Your task to perform on an android device: Empty the shopping cart on walmart. Add "acer predator" to the cart on walmart Image 0: 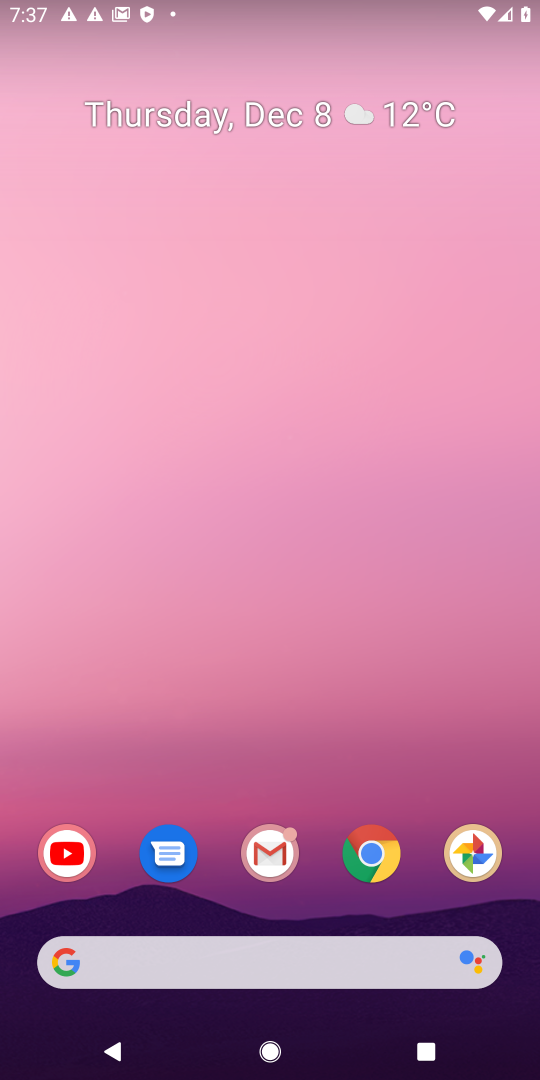
Step 0: click (195, 960)
Your task to perform on an android device: Empty the shopping cart on walmart. Add "acer predator" to the cart on walmart Image 1: 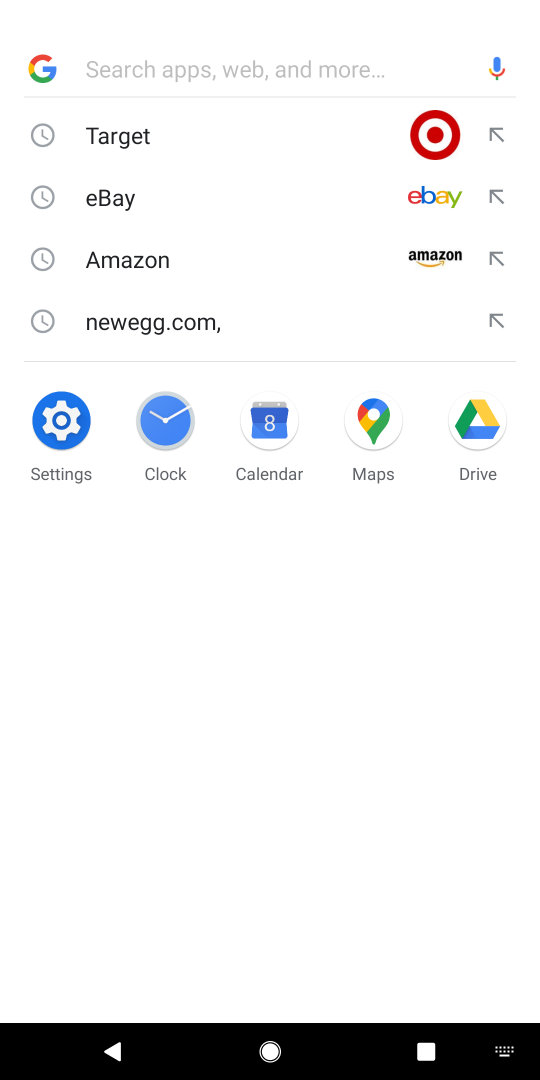
Step 1: type "walmart"
Your task to perform on an android device: Empty the shopping cart on walmart. Add "acer predator" to the cart on walmart Image 2: 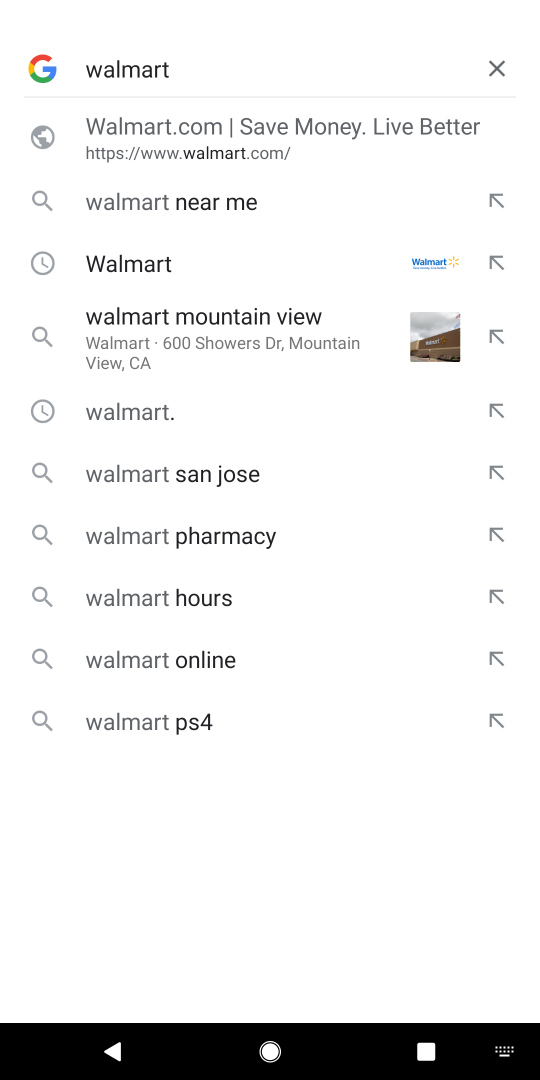
Step 2: click (117, 130)
Your task to perform on an android device: Empty the shopping cart on walmart. Add "acer predator" to the cart on walmart Image 3: 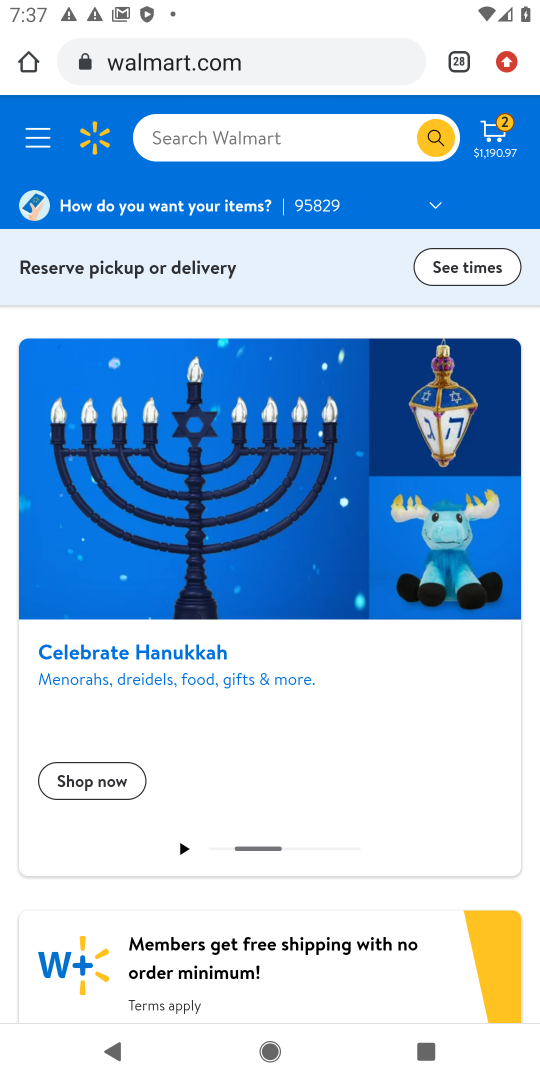
Step 3: click (495, 129)
Your task to perform on an android device: Empty the shopping cart on walmart. Add "acer predator" to the cart on walmart Image 4: 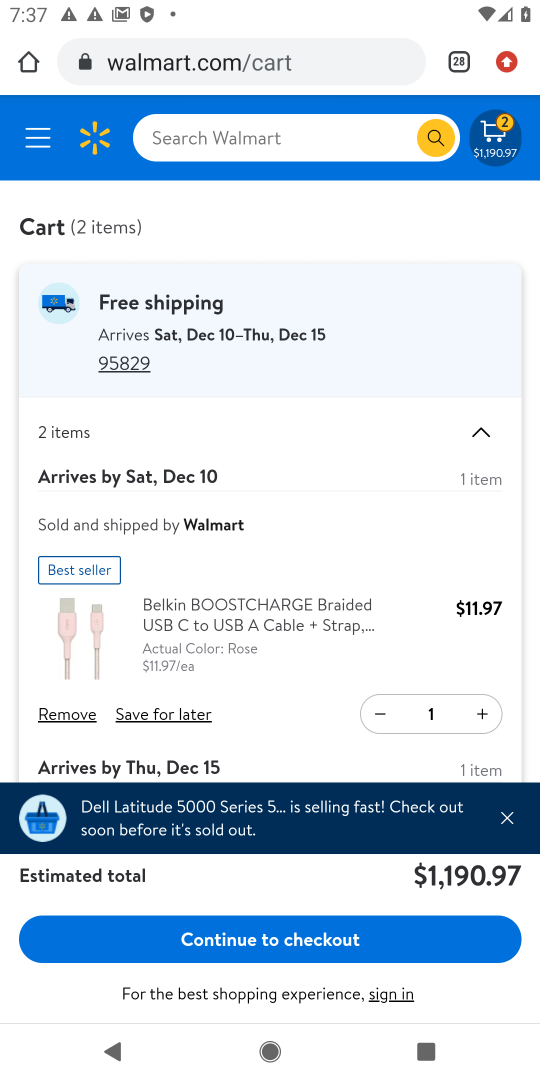
Step 4: drag from (285, 614) to (272, 296)
Your task to perform on an android device: Empty the shopping cart on walmart. Add "acer predator" to the cart on walmart Image 5: 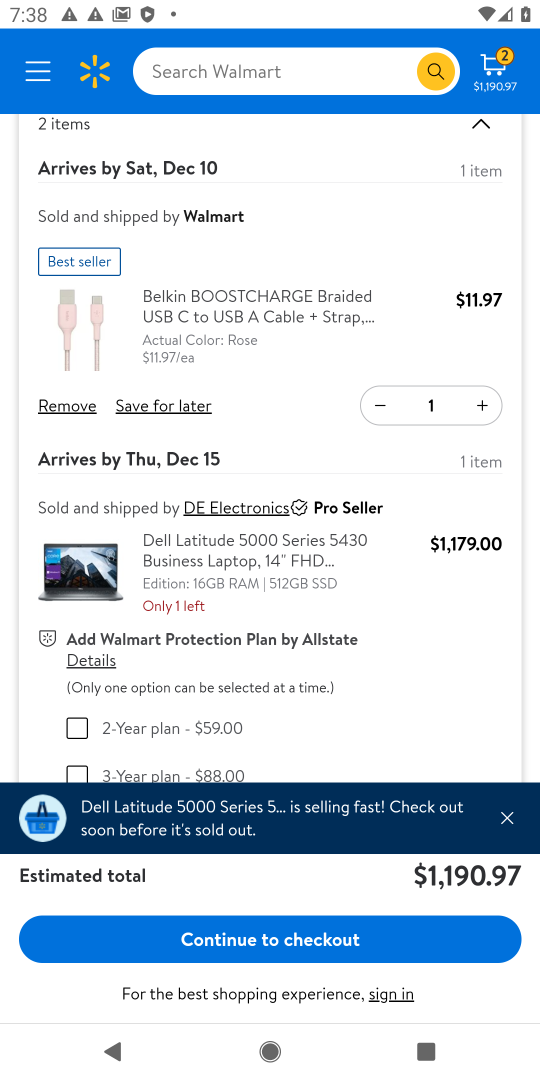
Step 5: click (52, 410)
Your task to perform on an android device: Empty the shopping cart on walmart. Add "acer predator" to the cart on walmart Image 6: 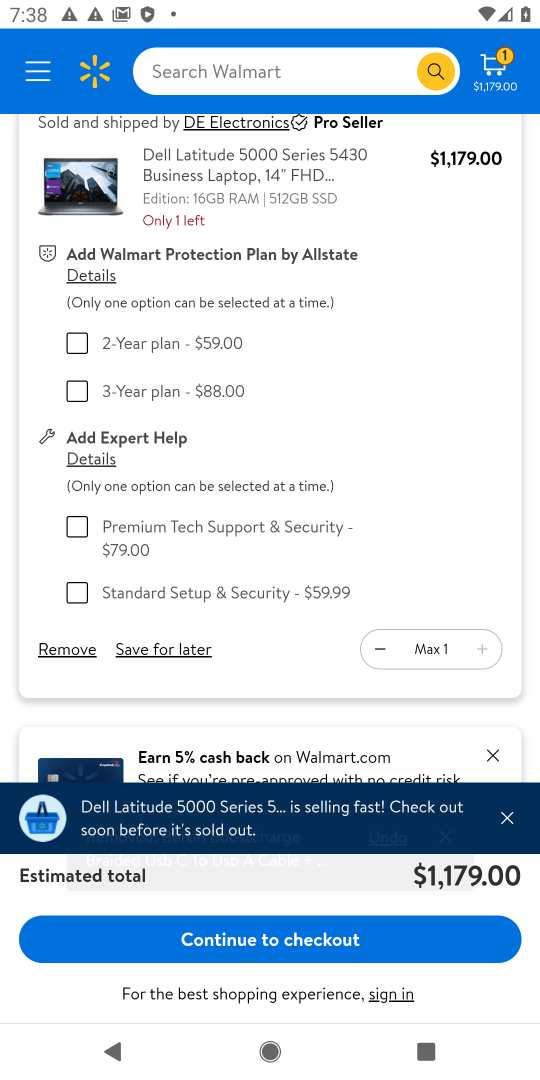
Step 6: click (68, 658)
Your task to perform on an android device: Empty the shopping cart on walmart. Add "acer predator" to the cart on walmart Image 7: 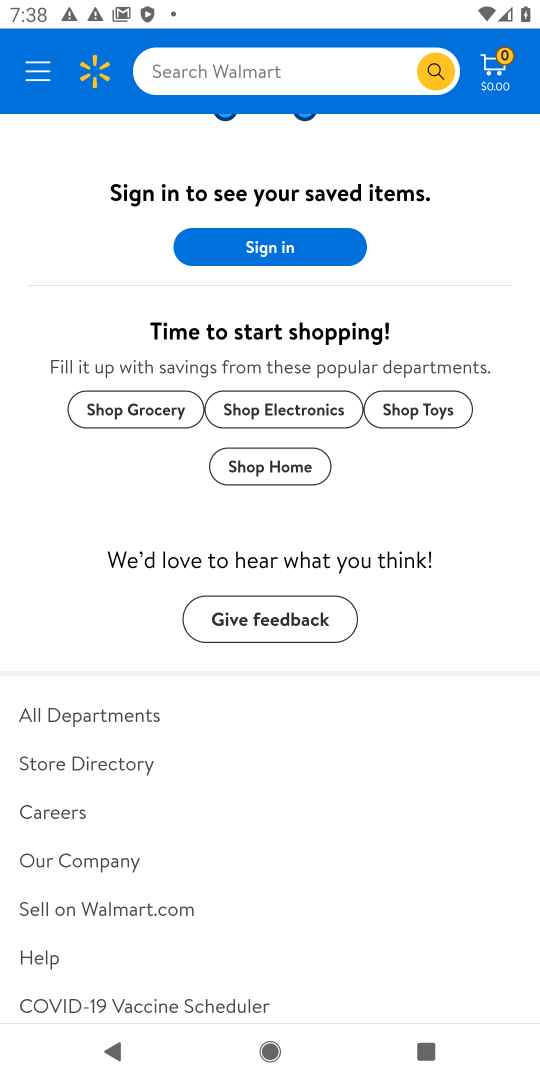
Step 7: click (183, 87)
Your task to perform on an android device: Empty the shopping cart on walmart. Add "acer predator" to the cart on walmart Image 8: 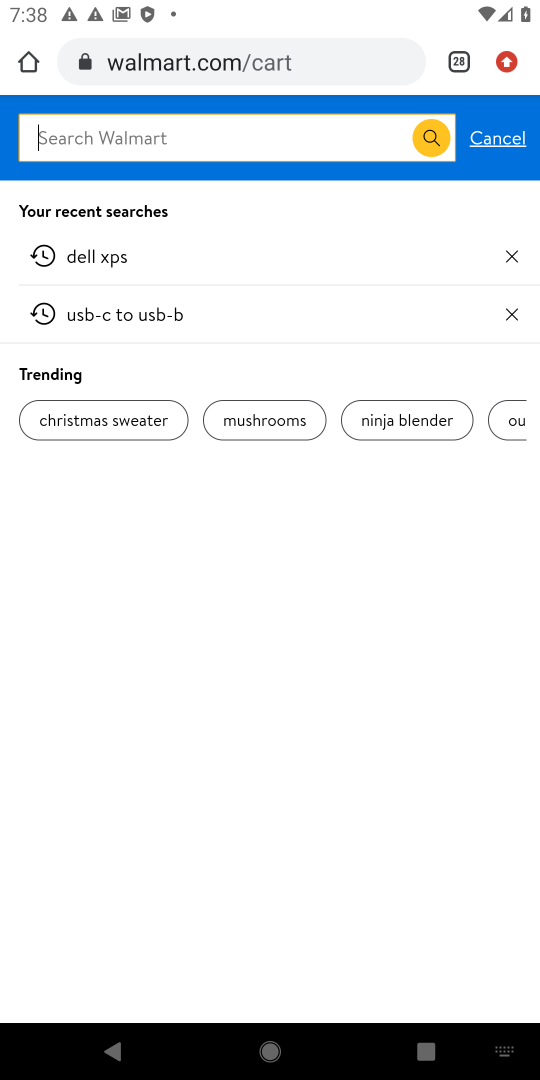
Step 8: type "acer predator"
Your task to perform on an android device: Empty the shopping cart on walmart. Add "acer predator" to the cart on walmart Image 9: 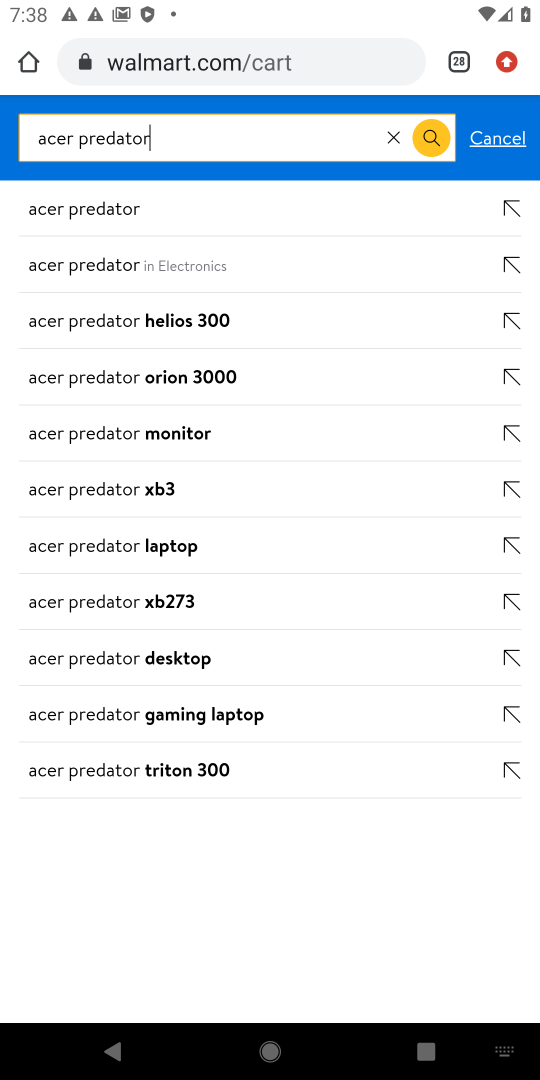
Step 9: click (118, 209)
Your task to perform on an android device: Empty the shopping cart on walmart. Add "acer predator" to the cart on walmart Image 10: 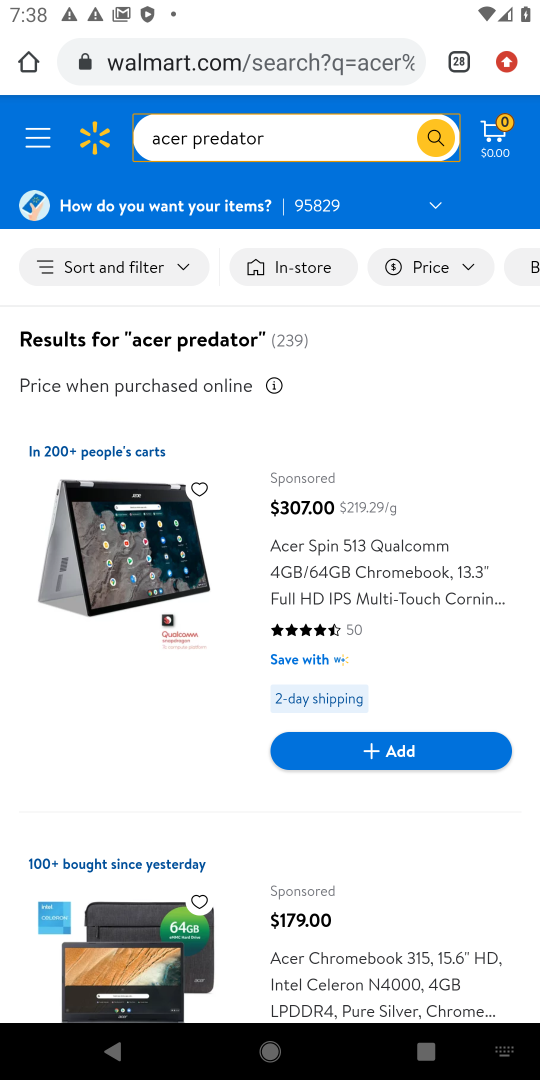
Step 10: click (363, 758)
Your task to perform on an android device: Empty the shopping cart on walmart. Add "acer predator" to the cart on walmart Image 11: 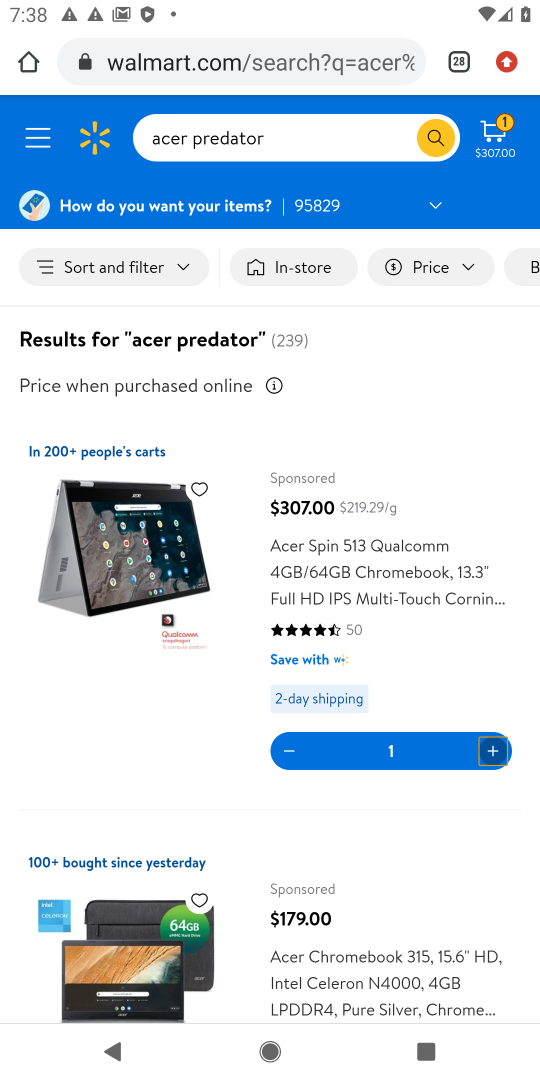
Step 11: task complete